Your task to perform on an android device: turn on airplane mode Image 0: 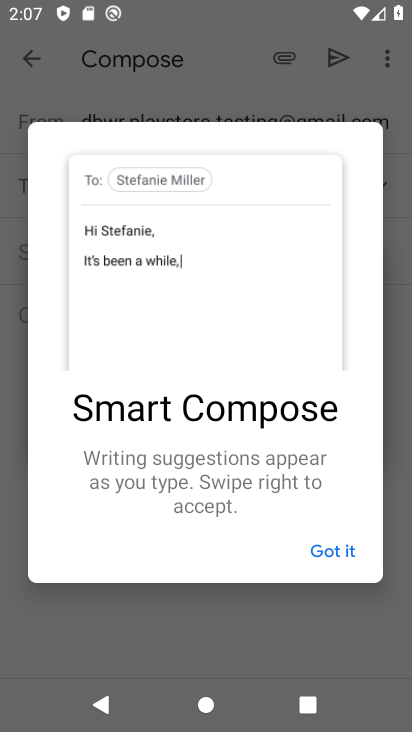
Step 0: drag from (241, 16) to (307, 557)
Your task to perform on an android device: turn on airplane mode Image 1: 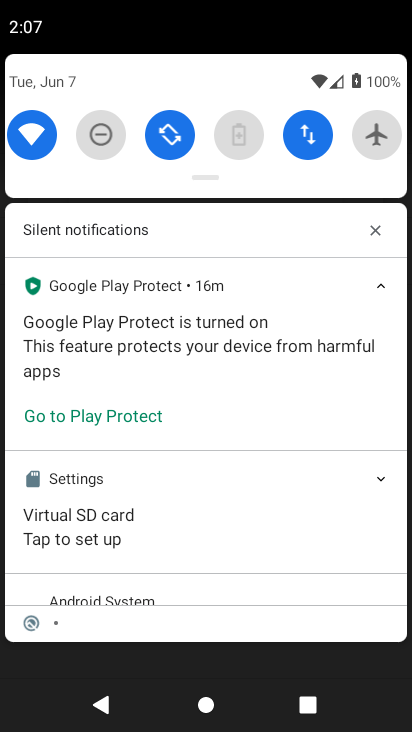
Step 1: click (379, 133)
Your task to perform on an android device: turn on airplane mode Image 2: 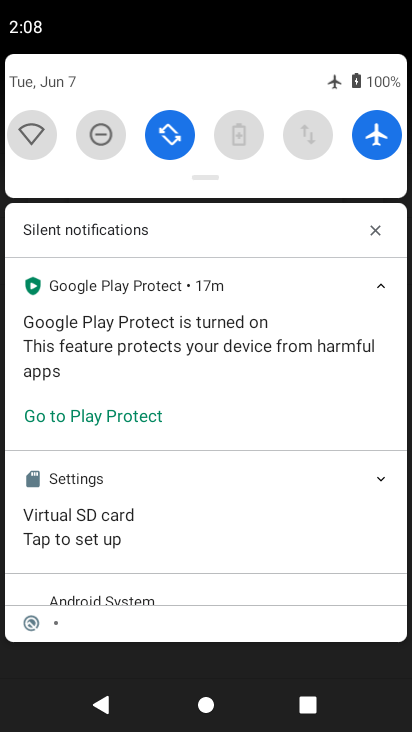
Step 2: task complete